Your task to perform on an android device: set the stopwatch Image 0: 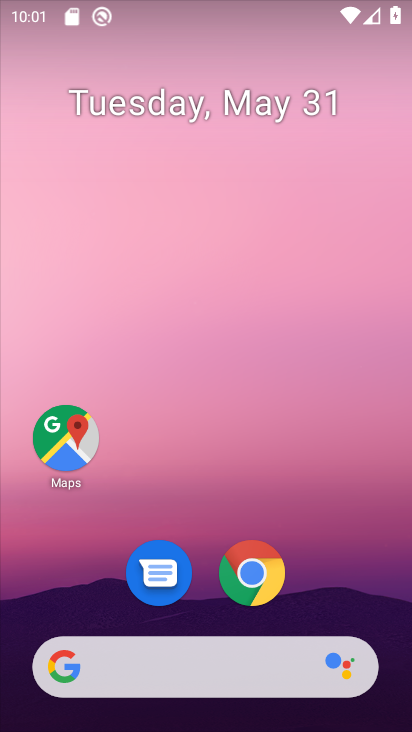
Step 0: drag from (201, 621) to (194, 257)
Your task to perform on an android device: set the stopwatch Image 1: 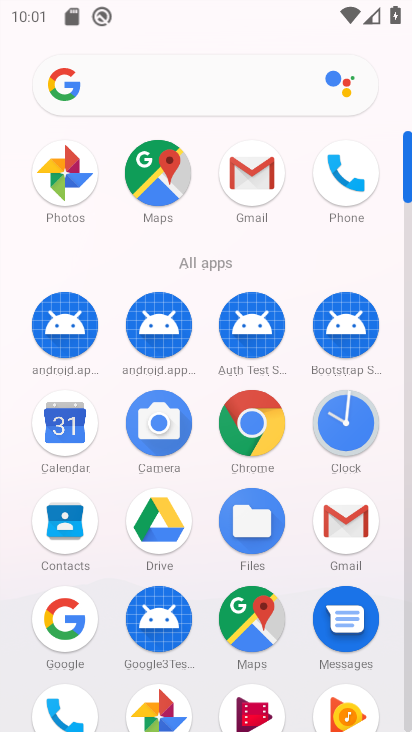
Step 1: click (342, 413)
Your task to perform on an android device: set the stopwatch Image 2: 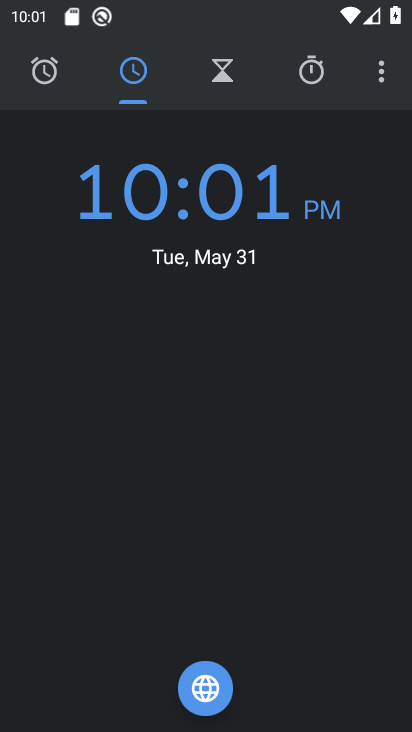
Step 2: click (305, 87)
Your task to perform on an android device: set the stopwatch Image 3: 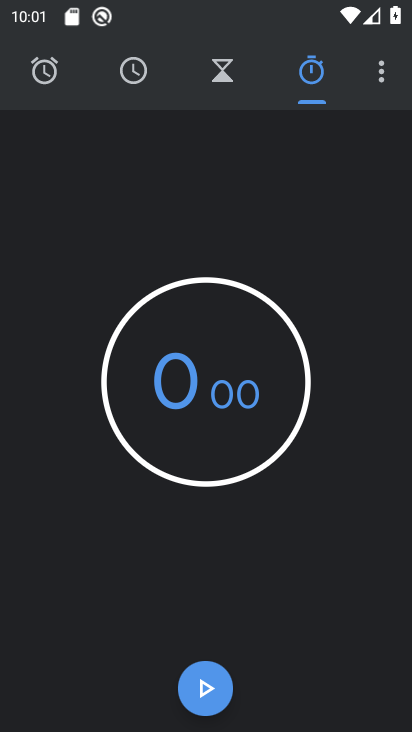
Step 3: click (210, 674)
Your task to perform on an android device: set the stopwatch Image 4: 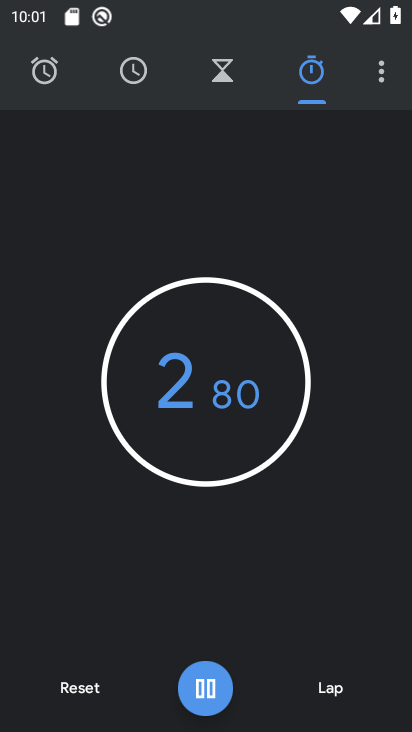
Step 4: task complete